Your task to perform on an android device: Open Reddit.com Image 0: 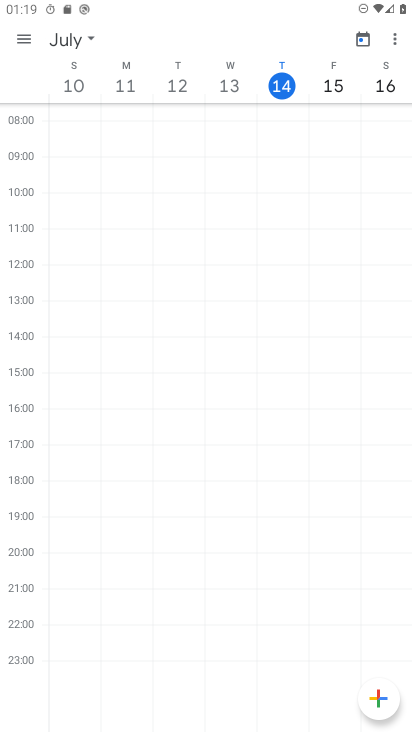
Step 0: press home button
Your task to perform on an android device: Open Reddit.com Image 1: 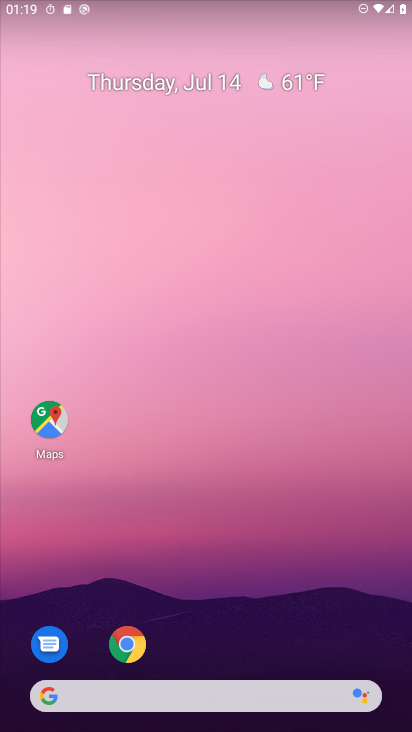
Step 1: drag from (326, 581) to (150, 77)
Your task to perform on an android device: Open Reddit.com Image 2: 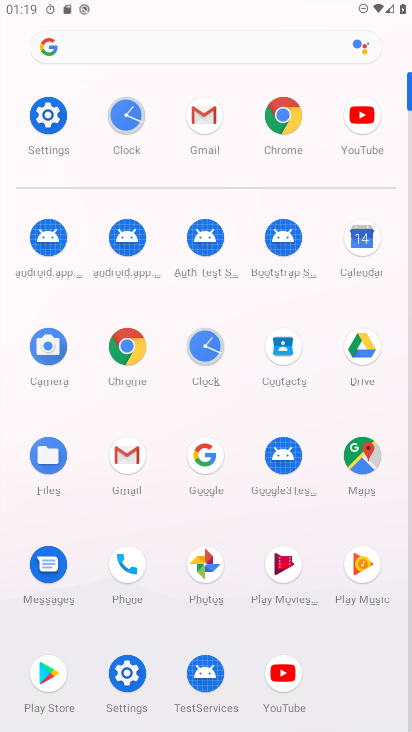
Step 2: click (287, 116)
Your task to perform on an android device: Open Reddit.com Image 3: 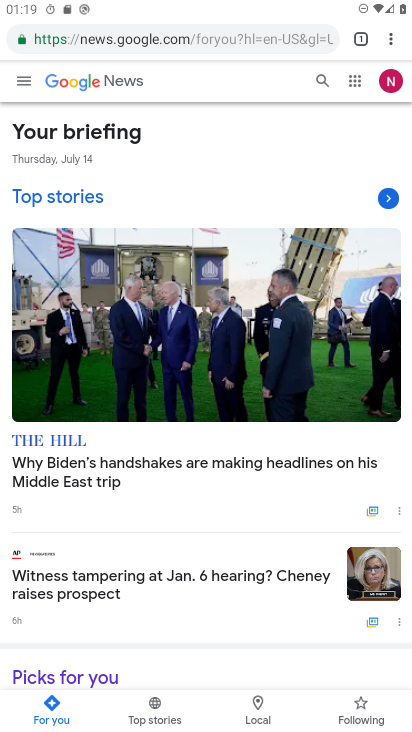
Step 3: click (193, 41)
Your task to perform on an android device: Open Reddit.com Image 4: 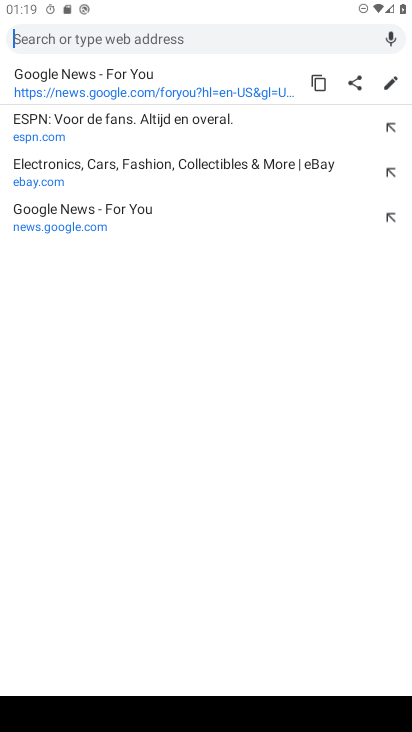
Step 4: type "reddit.com"
Your task to perform on an android device: Open Reddit.com Image 5: 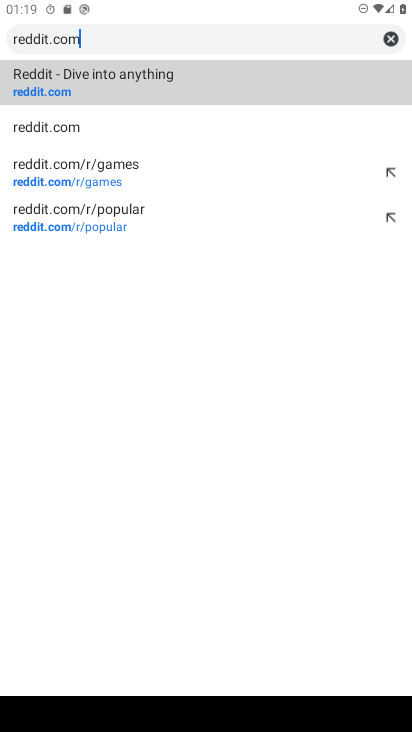
Step 5: click (49, 99)
Your task to perform on an android device: Open Reddit.com Image 6: 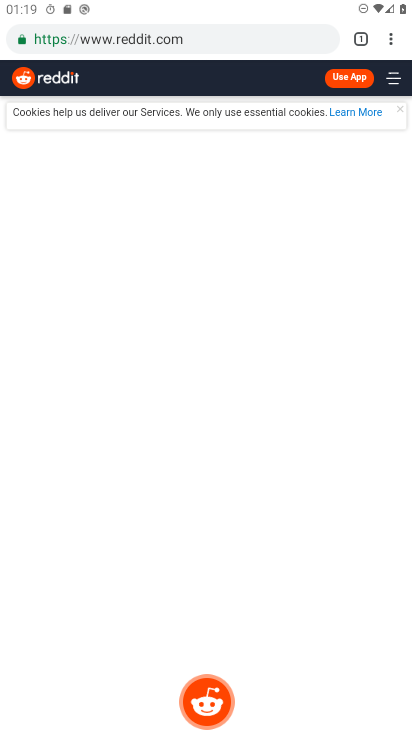
Step 6: task complete